Your task to perform on an android device: Open the stopwatch Image 0: 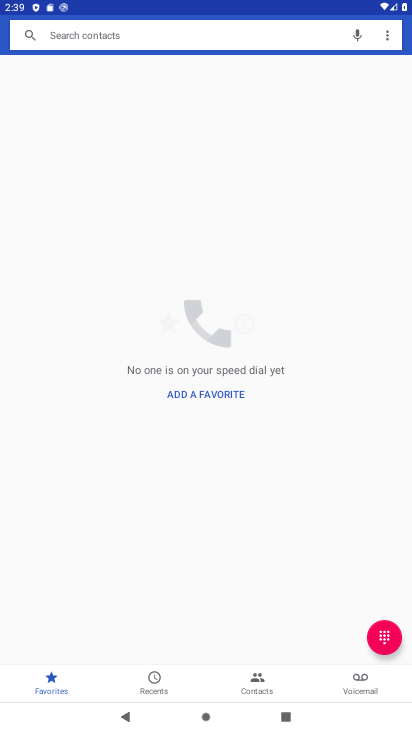
Step 0: press home button
Your task to perform on an android device: Open the stopwatch Image 1: 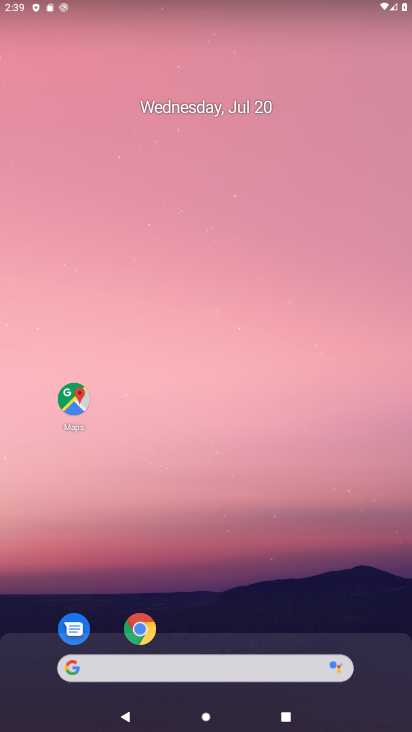
Step 1: drag from (227, 632) to (288, 6)
Your task to perform on an android device: Open the stopwatch Image 2: 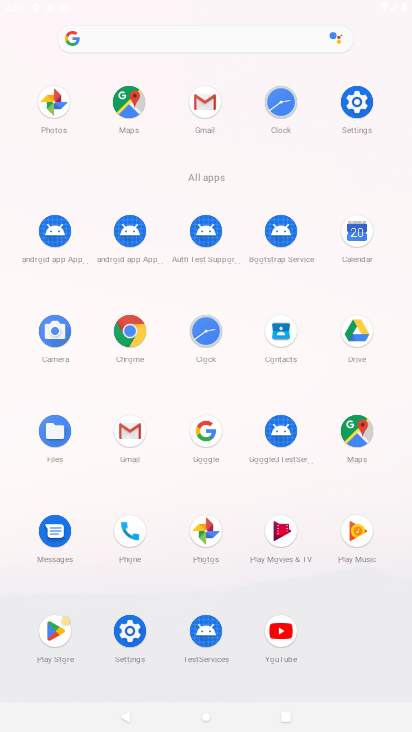
Step 2: drag from (215, 636) to (265, 110)
Your task to perform on an android device: Open the stopwatch Image 3: 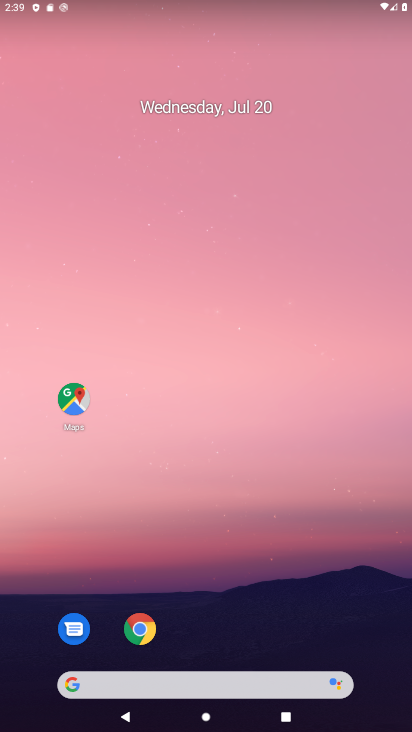
Step 3: drag from (220, 632) to (230, 14)
Your task to perform on an android device: Open the stopwatch Image 4: 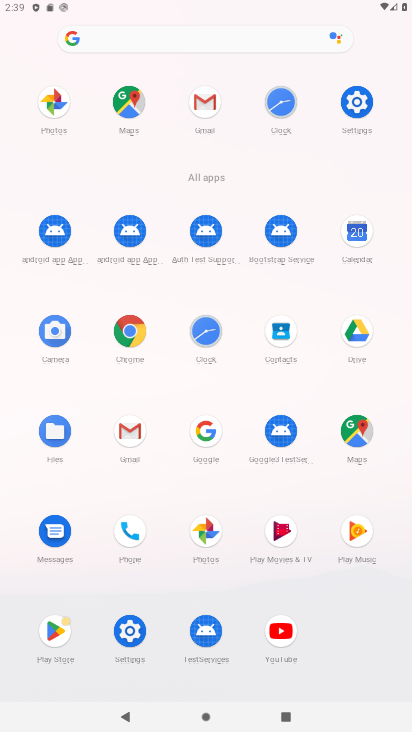
Step 4: click (208, 324)
Your task to perform on an android device: Open the stopwatch Image 5: 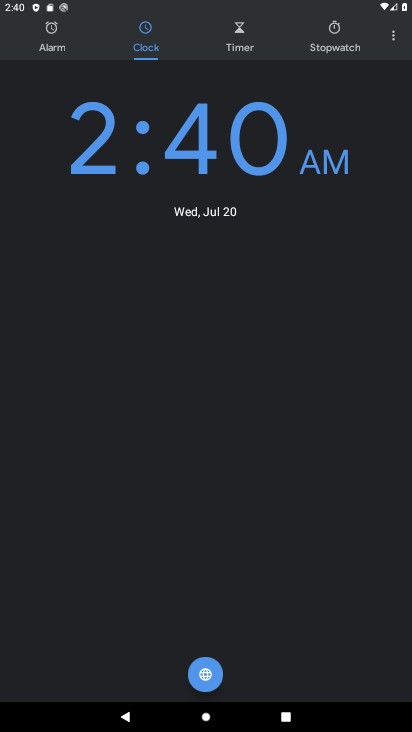
Step 5: click (336, 24)
Your task to perform on an android device: Open the stopwatch Image 6: 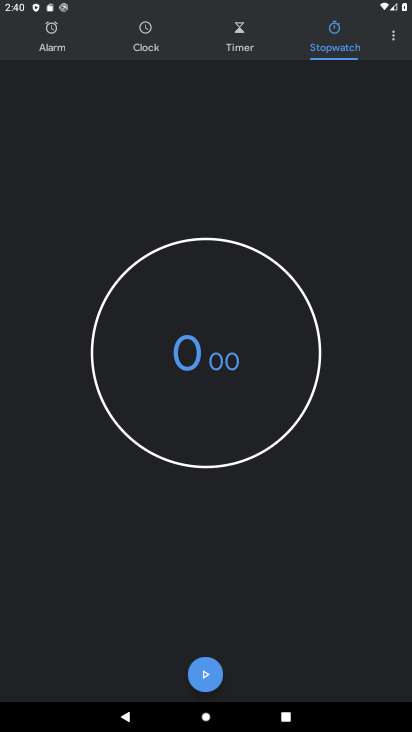
Step 6: click (202, 665)
Your task to perform on an android device: Open the stopwatch Image 7: 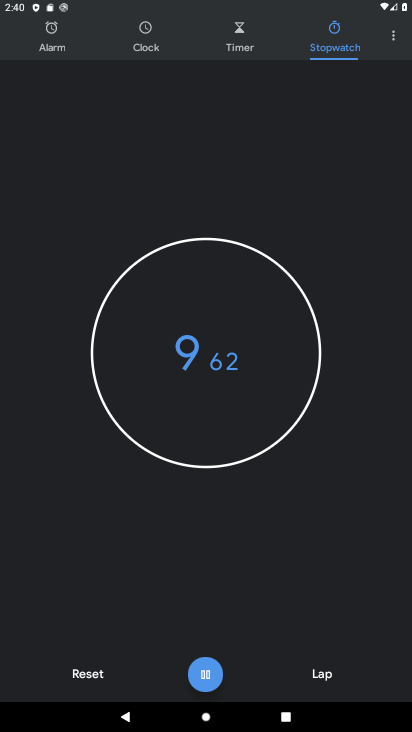
Step 7: task complete